Your task to perform on an android device: allow notifications from all sites in the chrome app Image 0: 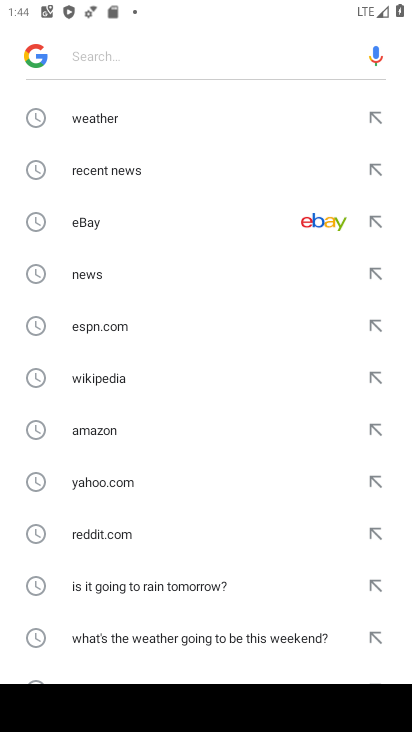
Step 0: press home button
Your task to perform on an android device: allow notifications from all sites in the chrome app Image 1: 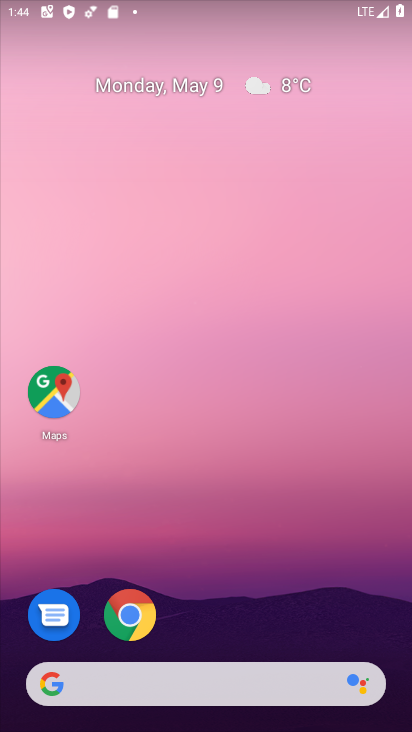
Step 1: click (128, 615)
Your task to perform on an android device: allow notifications from all sites in the chrome app Image 2: 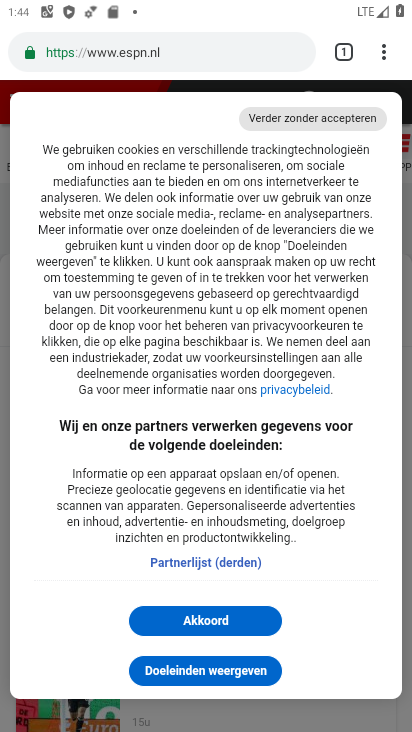
Step 2: click (382, 53)
Your task to perform on an android device: allow notifications from all sites in the chrome app Image 3: 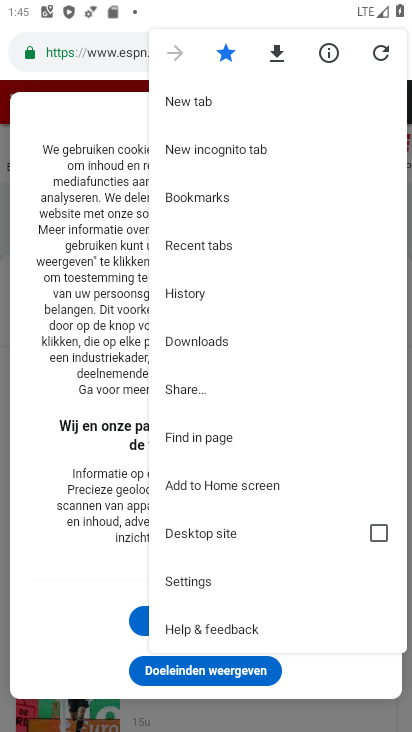
Step 3: click (194, 574)
Your task to perform on an android device: allow notifications from all sites in the chrome app Image 4: 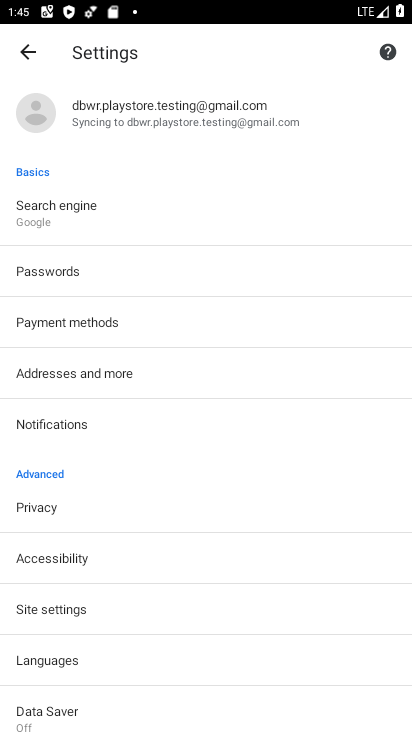
Step 4: click (55, 609)
Your task to perform on an android device: allow notifications from all sites in the chrome app Image 5: 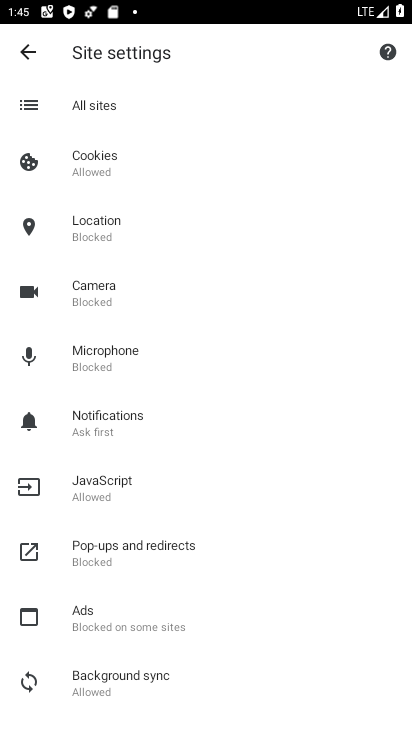
Step 5: click (93, 410)
Your task to perform on an android device: allow notifications from all sites in the chrome app Image 6: 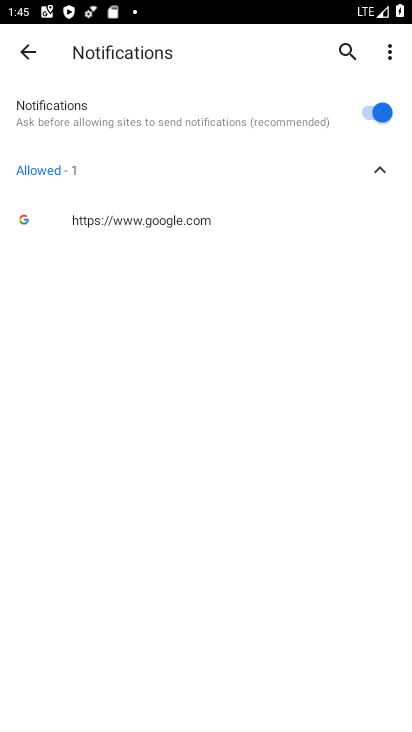
Step 6: task complete